Your task to perform on an android device: Open Chrome and go to settings Image 0: 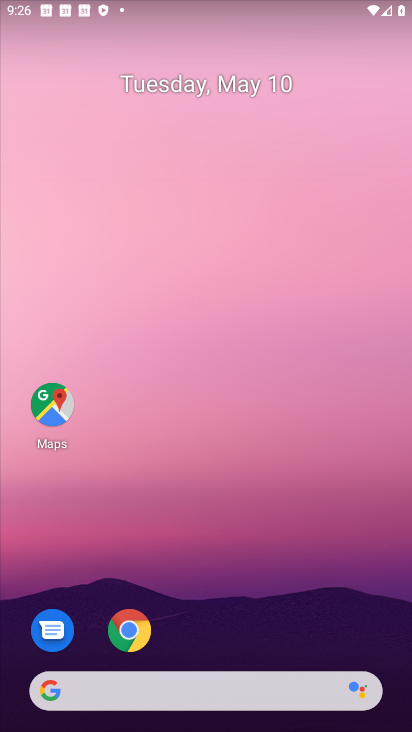
Step 0: click (136, 609)
Your task to perform on an android device: Open Chrome and go to settings Image 1: 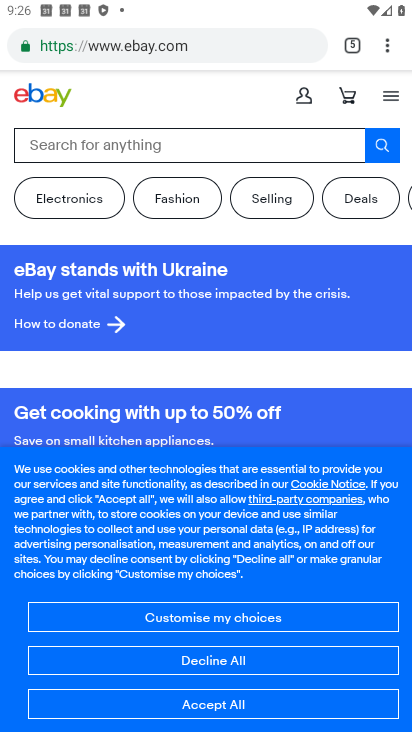
Step 1: click (389, 43)
Your task to perform on an android device: Open Chrome and go to settings Image 2: 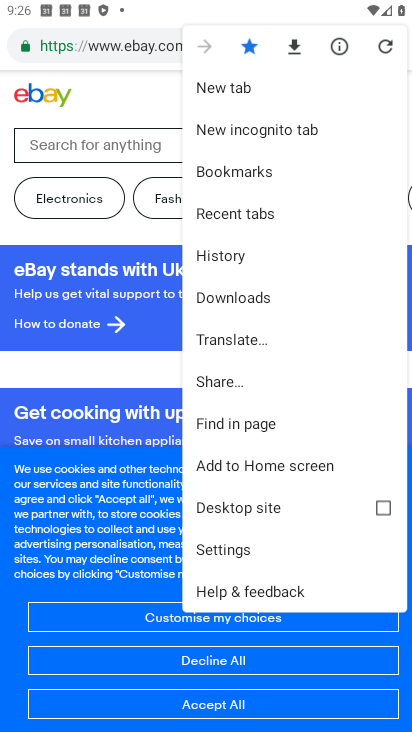
Step 2: click (235, 551)
Your task to perform on an android device: Open Chrome and go to settings Image 3: 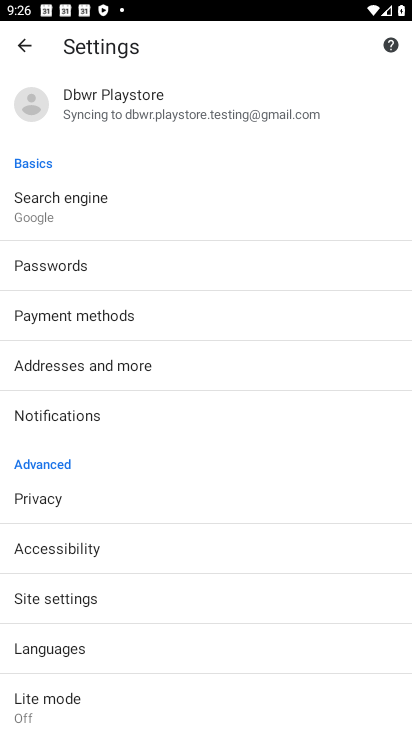
Step 3: task complete